Your task to perform on an android device: change the clock display to analog Image 0: 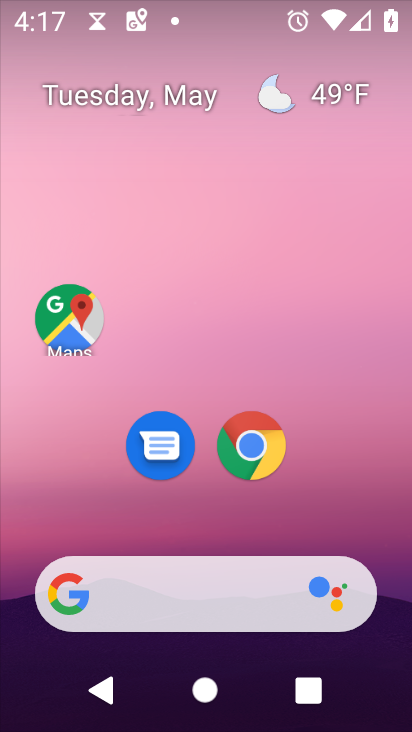
Step 0: drag from (254, 547) to (237, 6)
Your task to perform on an android device: change the clock display to analog Image 1: 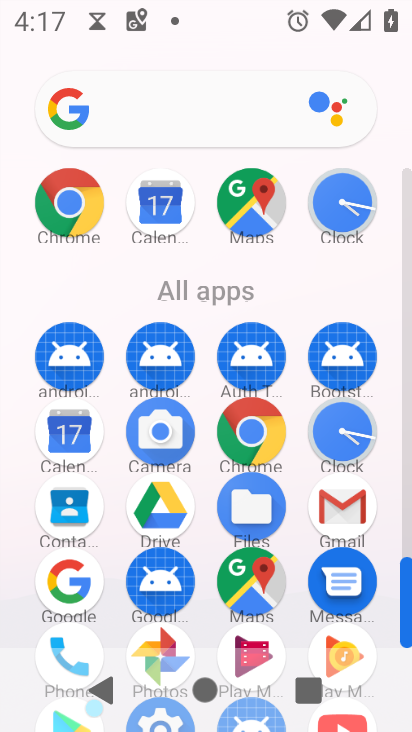
Step 1: click (329, 439)
Your task to perform on an android device: change the clock display to analog Image 2: 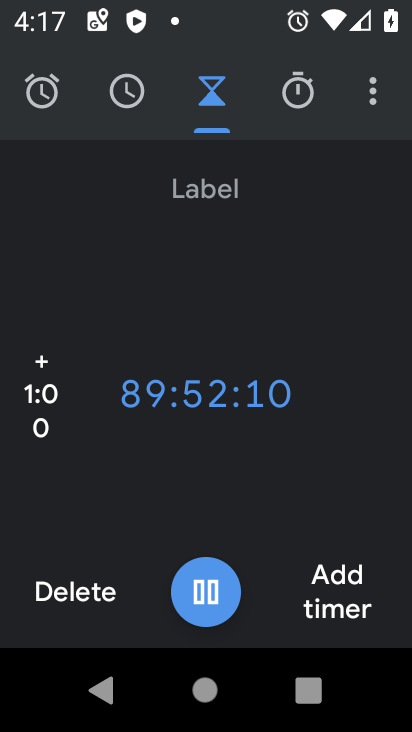
Step 2: click (369, 92)
Your task to perform on an android device: change the clock display to analog Image 3: 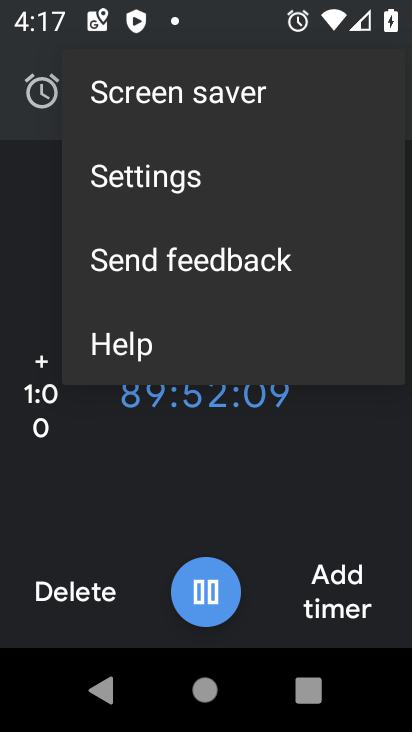
Step 3: click (172, 183)
Your task to perform on an android device: change the clock display to analog Image 4: 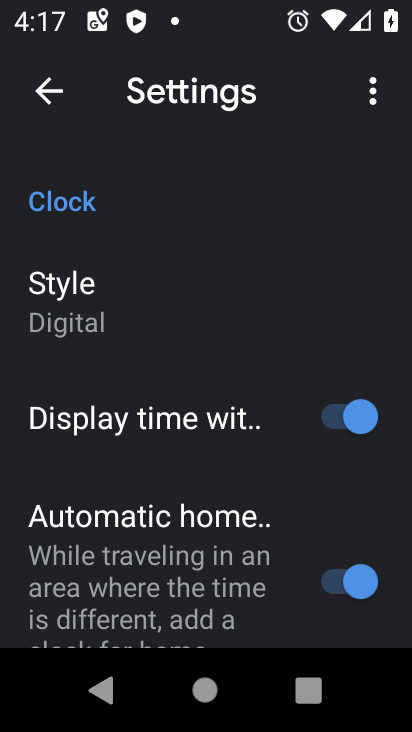
Step 4: click (256, 309)
Your task to perform on an android device: change the clock display to analog Image 5: 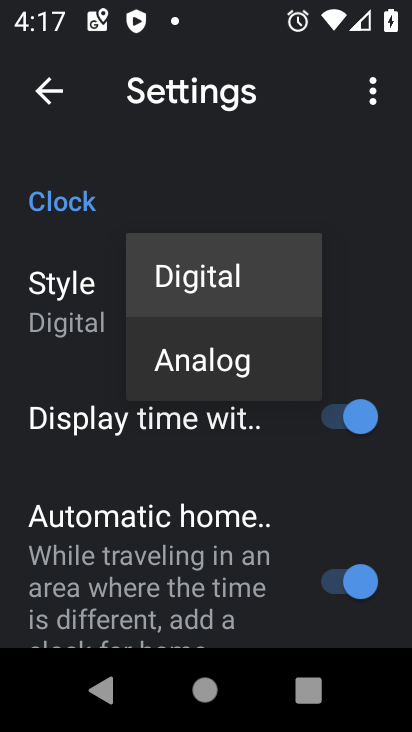
Step 5: click (195, 341)
Your task to perform on an android device: change the clock display to analog Image 6: 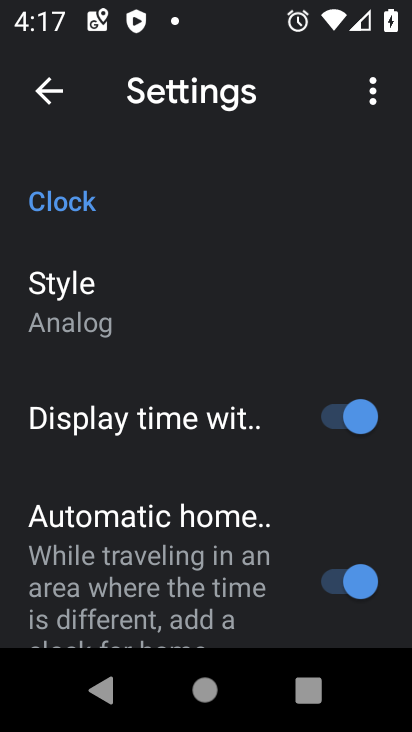
Step 6: task complete